Your task to perform on an android device: Go to ESPN.com Image 0: 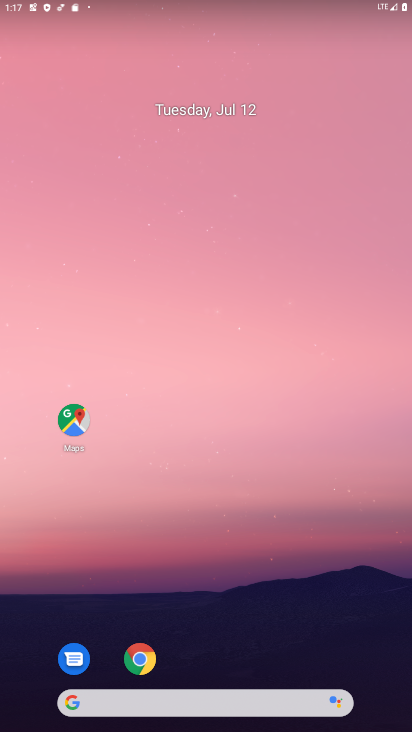
Step 0: drag from (222, 717) to (230, 159)
Your task to perform on an android device: Go to ESPN.com Image 1: 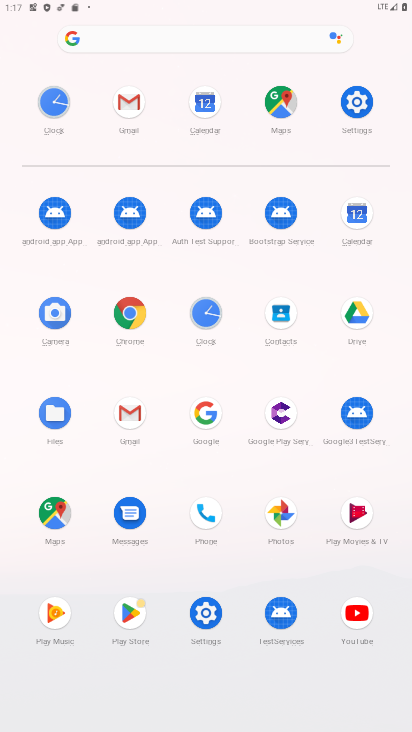
Step 1: click (131, 312)
Your task to perform on an android device: Go to ESPN.com Image 2: 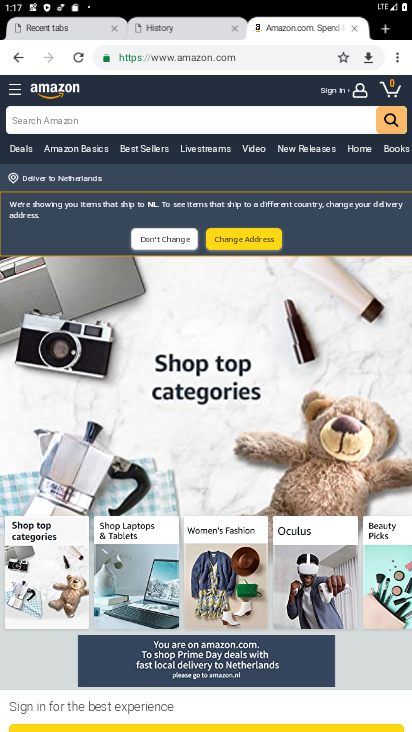
Step 2: click (397, 62)
Your task to perform on an android device: Go to ESPN.com Image 3: 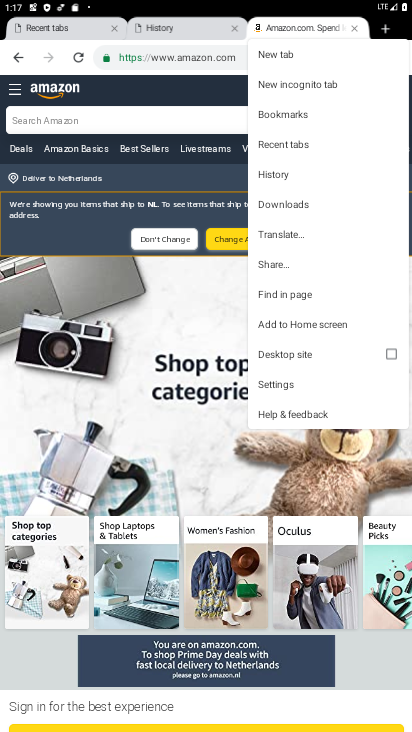
Step 3: click (274, 56)
Your task to perform on an android device: Go to ESPN.com Image 4: 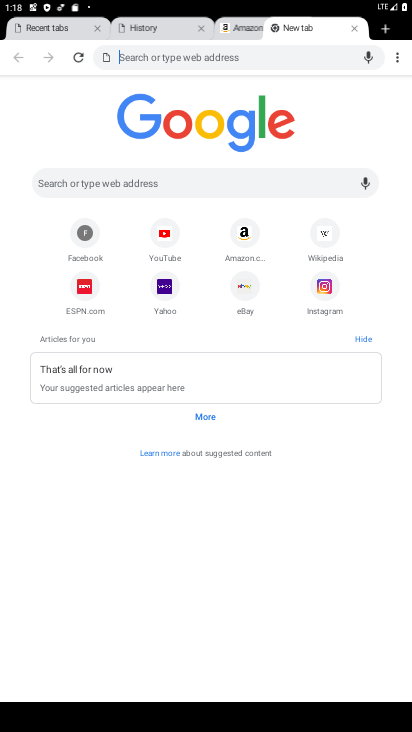
Step 4: click (89, 281)
Your task to perform on an android device: Go to ESPN.com Image 5: 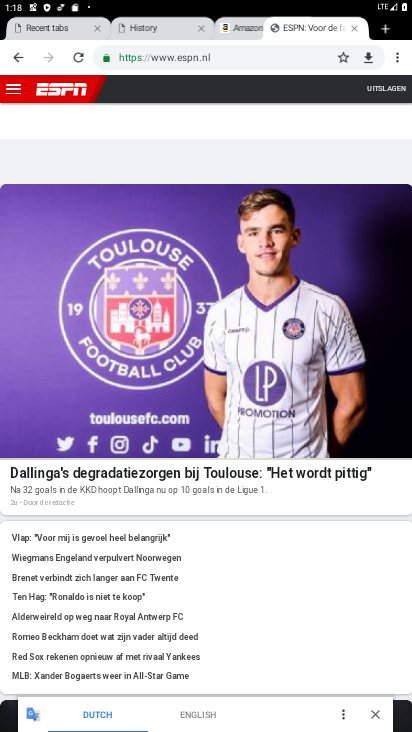
Step 5: task complete